Your task to perform on an android device: Open my contact list Image 0: 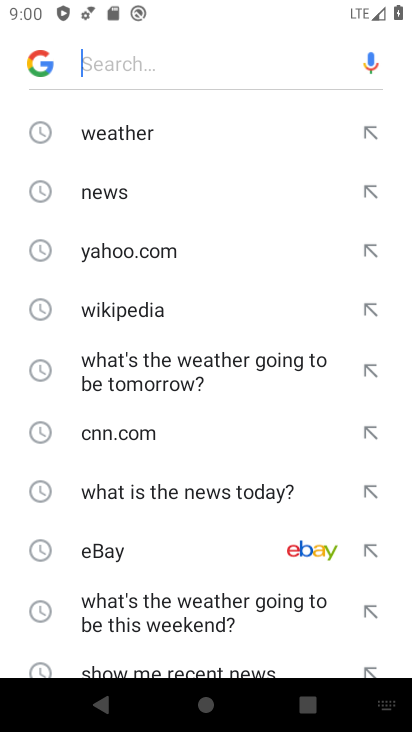
Step 0: press back button
Your task to perform on an android device: Open my contact list Image 1: 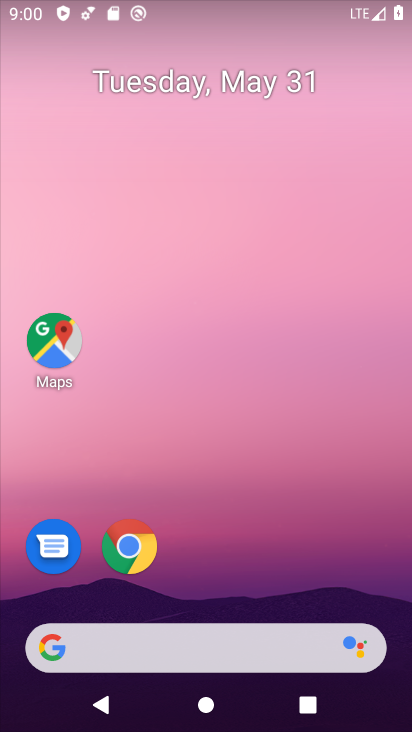
Step 1: drag from (407, 710) to (379, 121)
Your task to perform on an android device: Open my contact list Image 2: 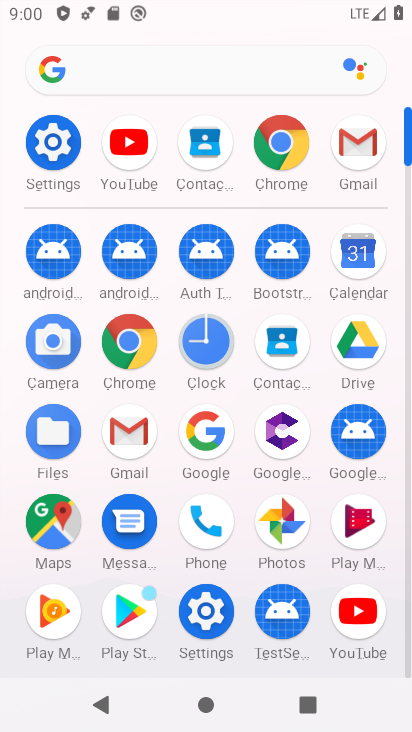
Step 2: click (266, 331)
Your task to perform on an android device: Open my contact list Image 3: 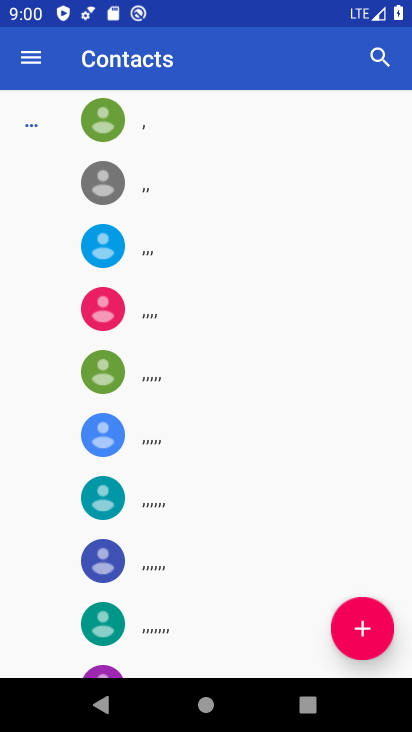
Step 3: task complete